Your task to perform on an android device: turn on javascript in the chrome app Image 0: 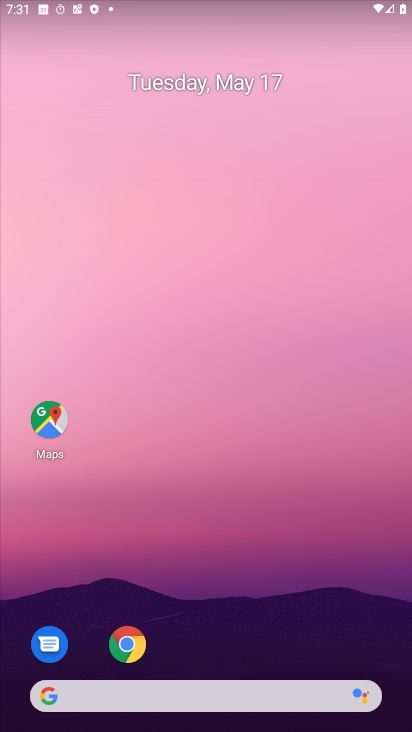
Step 0: drag from (363, 637) to (255, 50)
Your task to perform on an android device: turn on javascript in the chrome app Image 1: 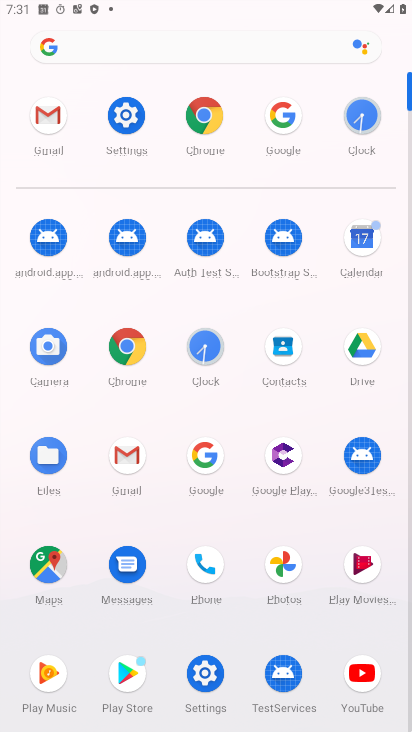
Step 1: click (209, 118)
Your task to perform on an android device: turn on javascript in the chrome app Image 2: 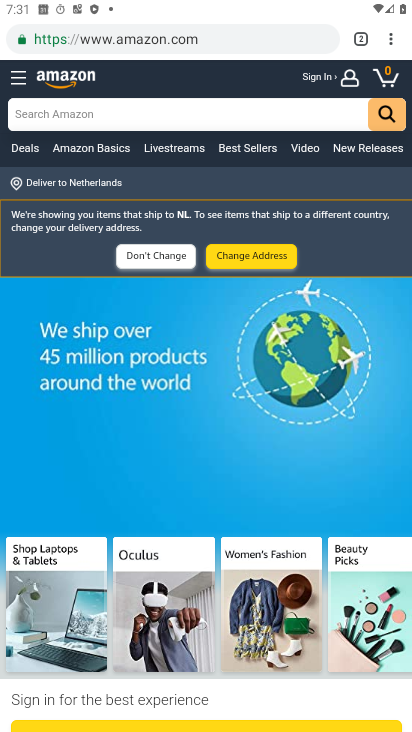
Step 2: press back button
Your task to perform on an android device: turn on javascript in the chrome app Image 3: 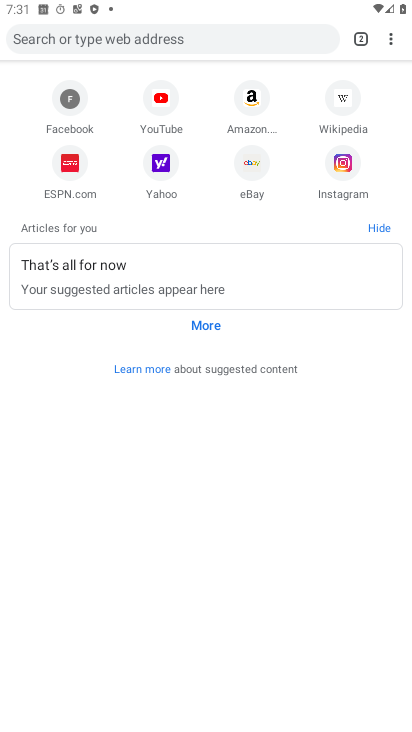
Step 3: click (393, 39)
Your task to perform on an android device: turn on javascript in the chrome app Image 4: 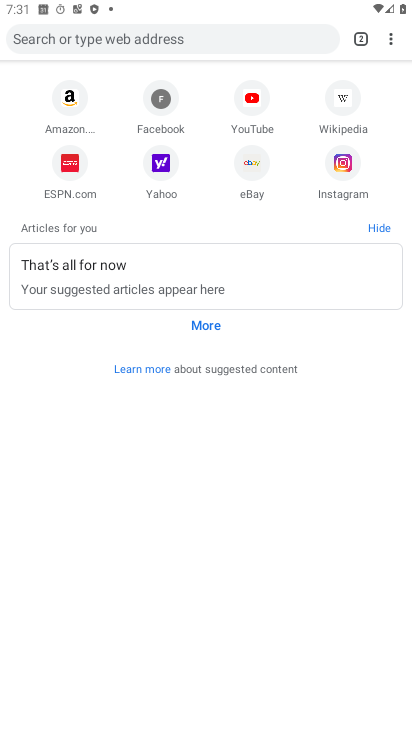
Step 4: click (391, 33)
Your task to perform on an android device: turn on javascript in the chrome app Image 5: 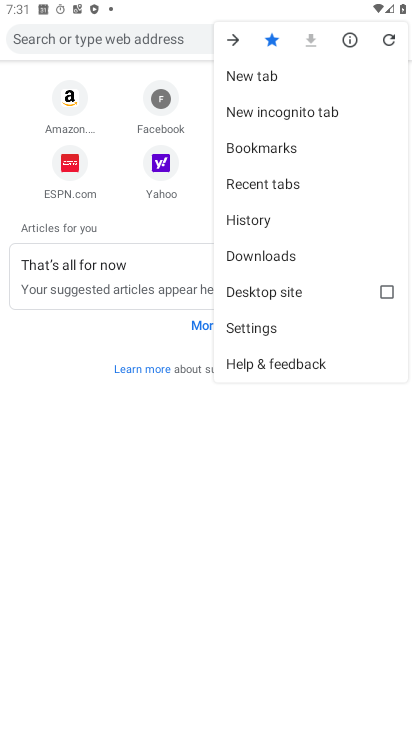
Step 5: click (311, 314)
Your task to perform on an android device: turn on javascript in the chrome app Image 6: 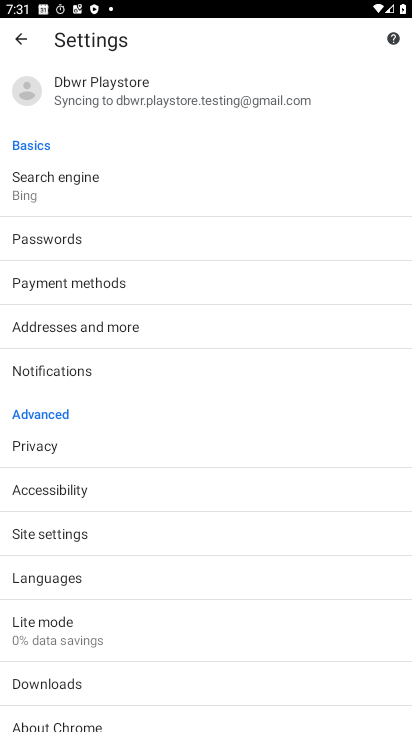
Step 6: click (145, 526)
Your task to perform on an android device: turn on javascript in the chrome app Image 7: 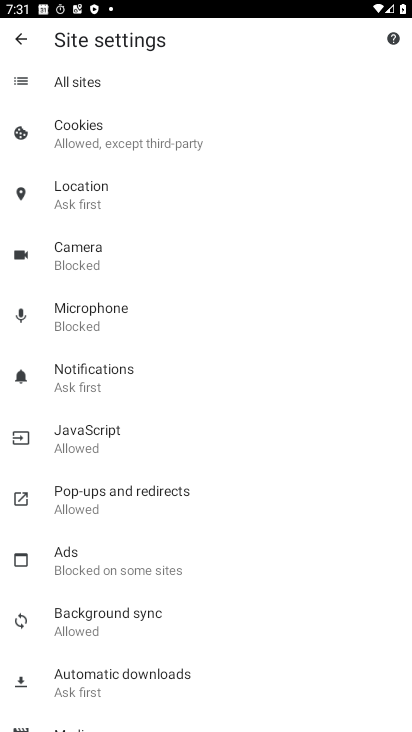
Step 7: click (132, 439)
Your task to perform on an android device: turn on javascript in the chrome app Image 8: 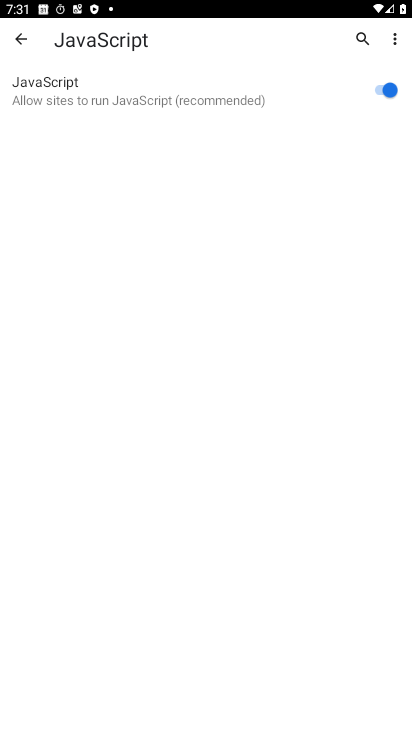
Step 8: task complete